Your task to perform on an android device: Open settings Image 0: 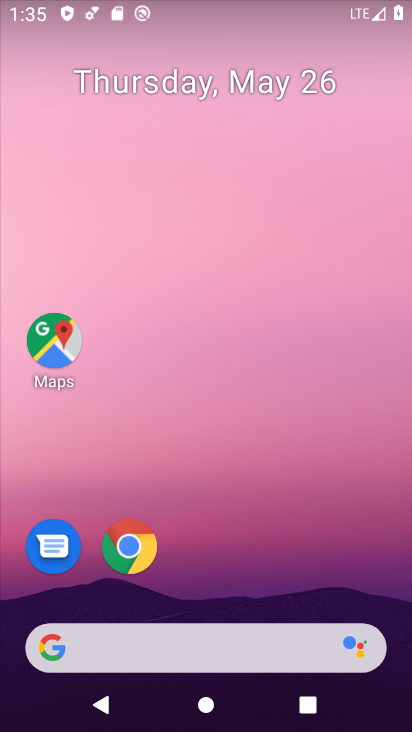
Step 0: drag from (262, 331) to (176, 23)
Your task to perform on an android device: Open settings Image 1: 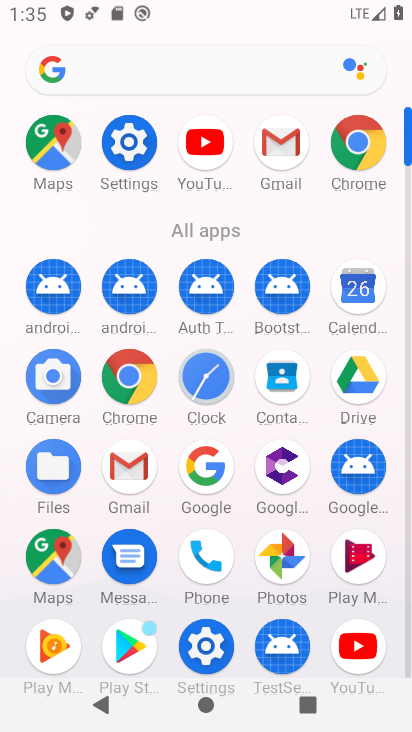
Step 1: click (132, 135)
Your task to perform on an android device: Open settings Image 2: 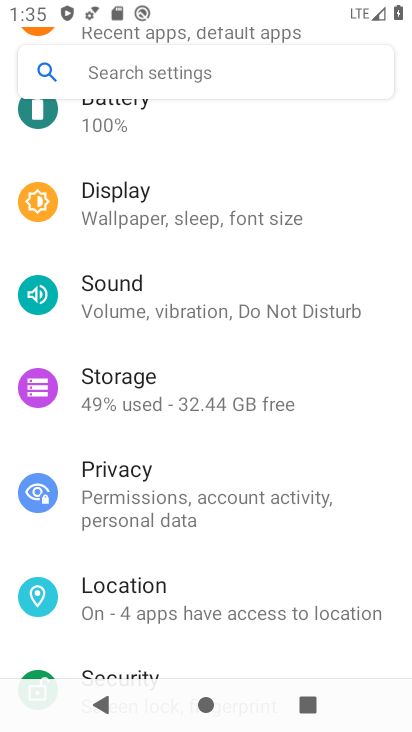
Step 2: task complete